Your task to perform on an android device: turn off notifications in google photos Image 0: 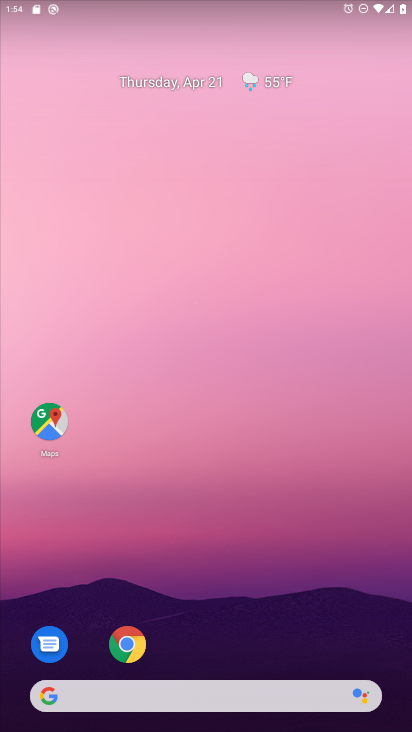
Step 0: drag from (285, 616) to (185, 95)
Your task to perform on an android device: turn off notifications in google photos Image 1: 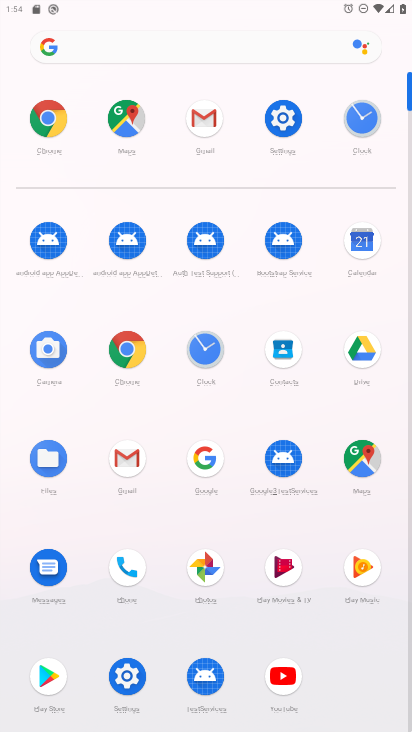
Step 1: click (199, 568)
Your task to perform on an android device: turn off notifications in google photos Image 2: 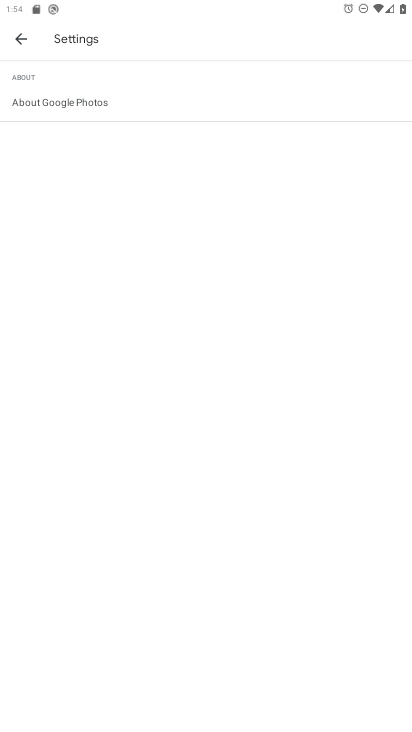
Step 2: click (15, 36)
Your task to perform on an android device: turn off notifications in google photos Image 3: 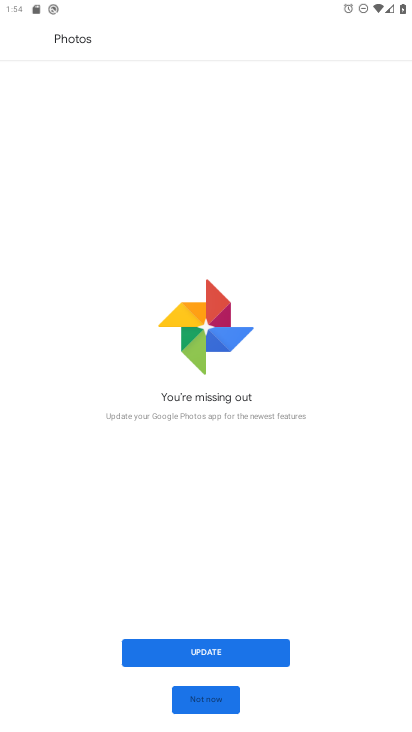
Step 3: click (222, 693)
Your task to perform on an android device: turn off notifications in google photos Image 4: 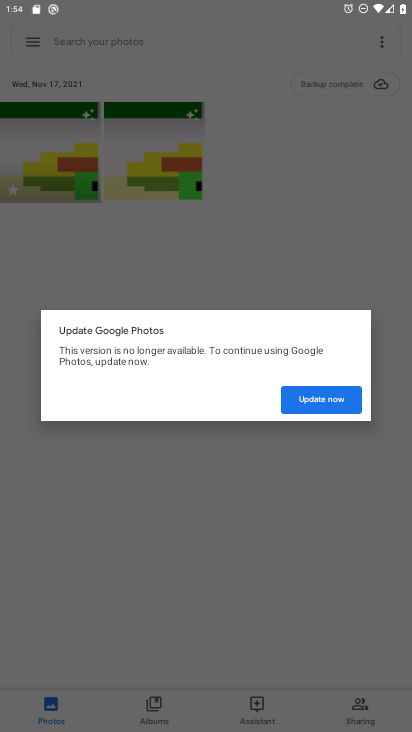
Step 4: click (309, 402)
Your task to perform on an android device: turn off notifications in google photos Image 5: 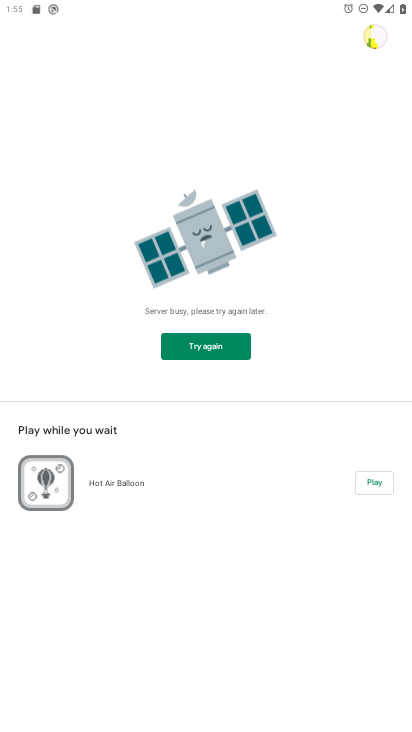
Step 5: press home button
Your task to perform on an android device: turn off notifications in google photos Image 6: 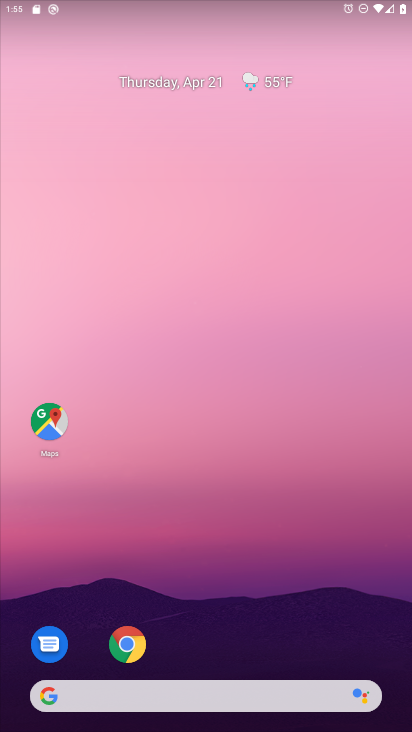
Step 6: drag from (213, 599) to (251, 84)
Your task to perform on an android device: turn off notifications in google photos Image 7: 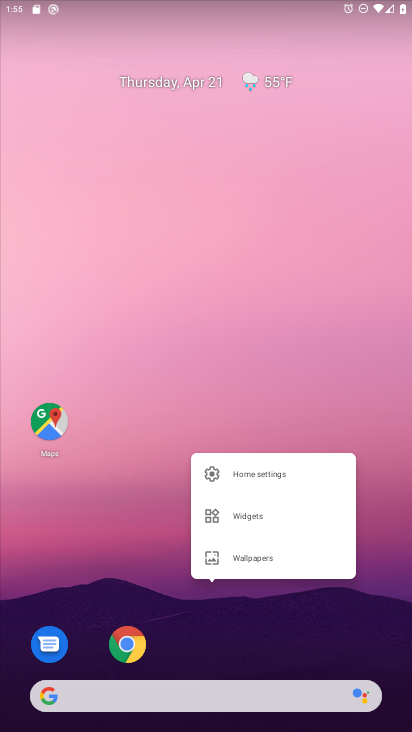
Step 7: click (270, 401)
Your task to perform on an android device: turn off notifications in google photos Image 8: 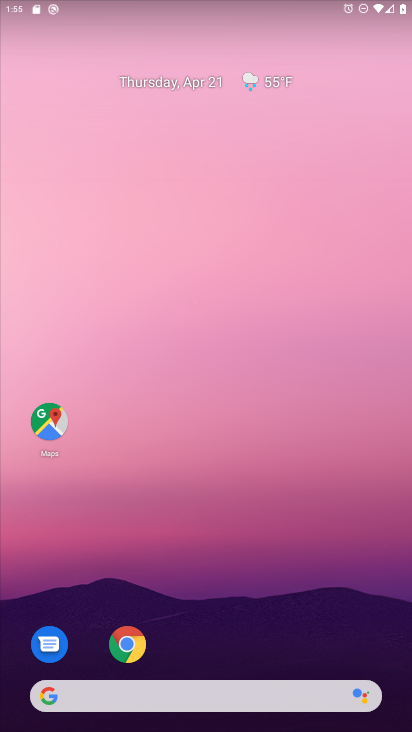
Step 8: drag from (243, 658) to (156, 63)
Your task to perform on an android device: turn off notifications in google photos Image 9: 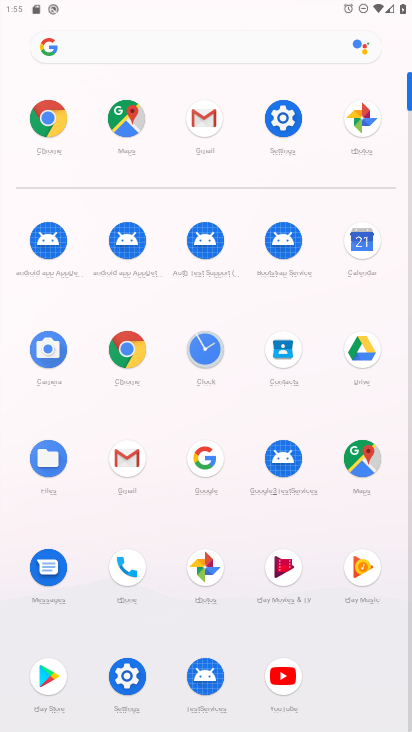
Step 9: click (367, 129)
Your task to perform on an android device: turn off notifications in google photos Image 10: 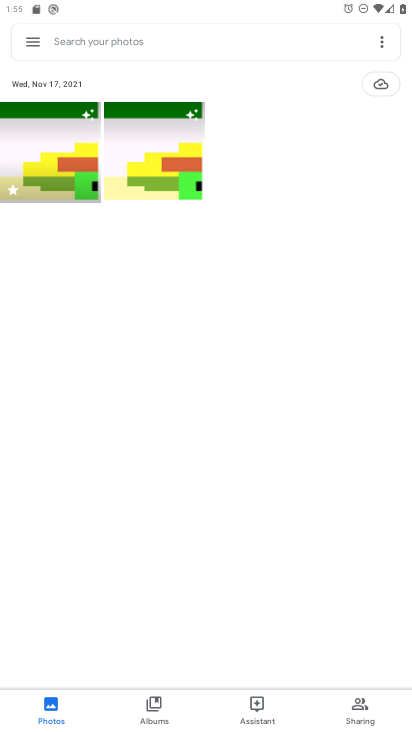
Step 10: click (33, 41)
Your task to perform on an android device: turn off notifications in google photos Image 11: 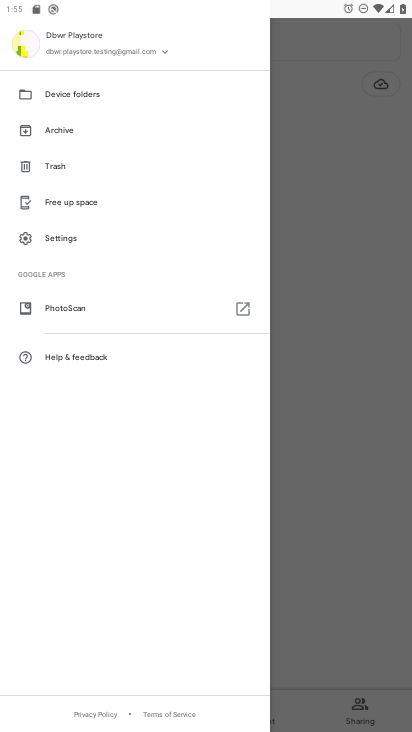
Step 11: click (24, 240)
Your task to perform on an android device: turn off notifications in google photos Image 12: 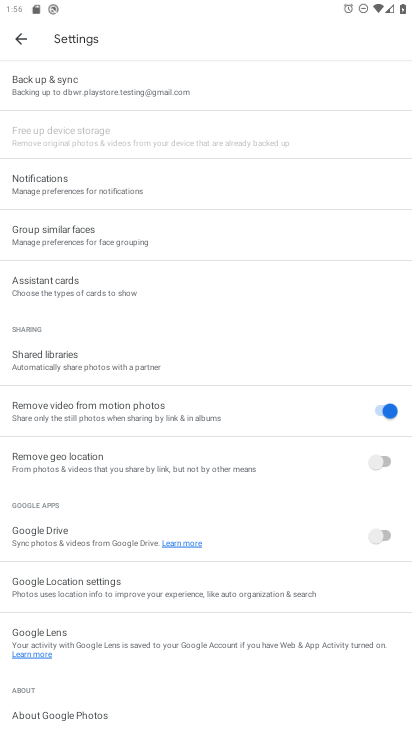
Step 12: click (96, 190)
Your task to perform on an android device: turn off notifications in google photos Image 13: 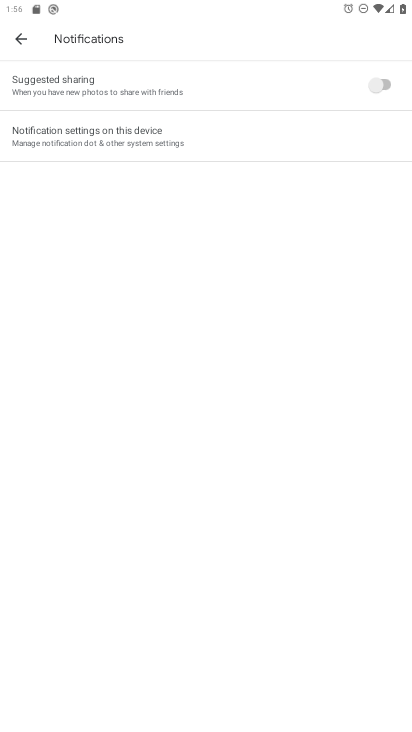
Step 13: click (148, 140)
Your task to perform on an android device: turn off notifications in google photos Image 14: 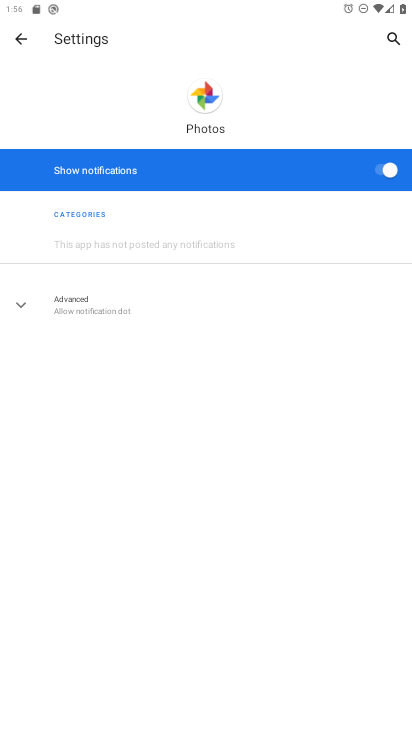
Step 14: click (383, 179)
Your task to perform on an android device: turn off notifications in google photos Image 15: 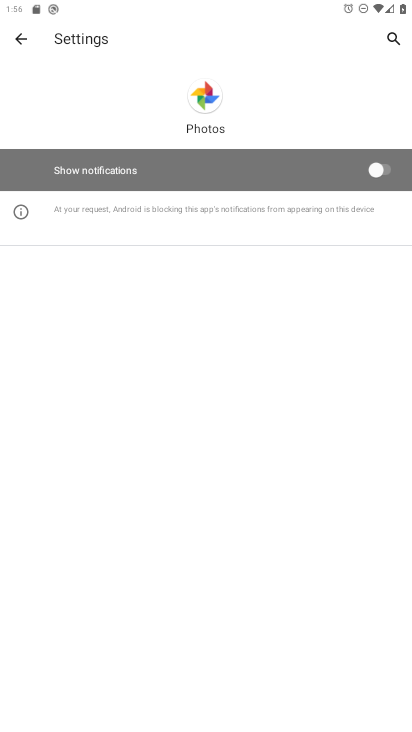
Step 15: task complete